Your task to perform on an android device: allow cookies in the chrome app Image 0: 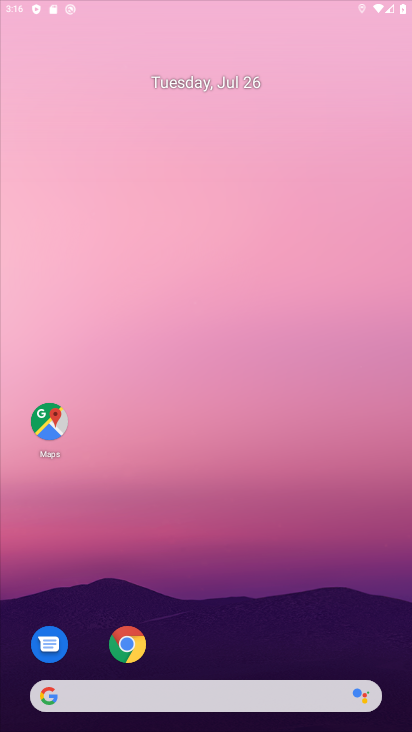
Step 0: click (213, 222)
Your task to perform on an android device: allow cookies in the chrome app Image 1: 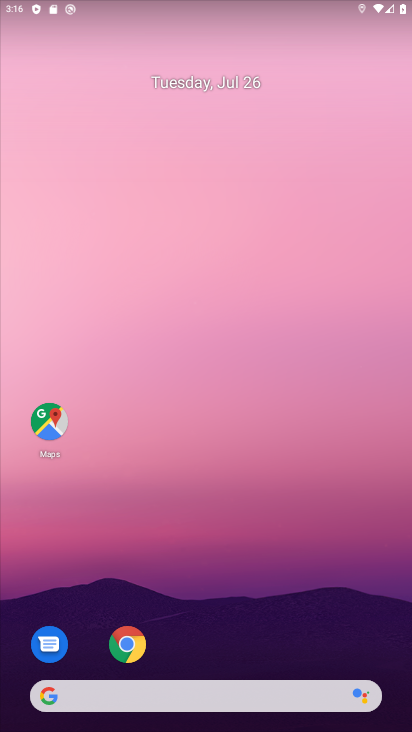
Step 1: drag from (192, 647) to (217, 311)
Your task to perform on an android device: allow cookies in the chrome app Image 2: 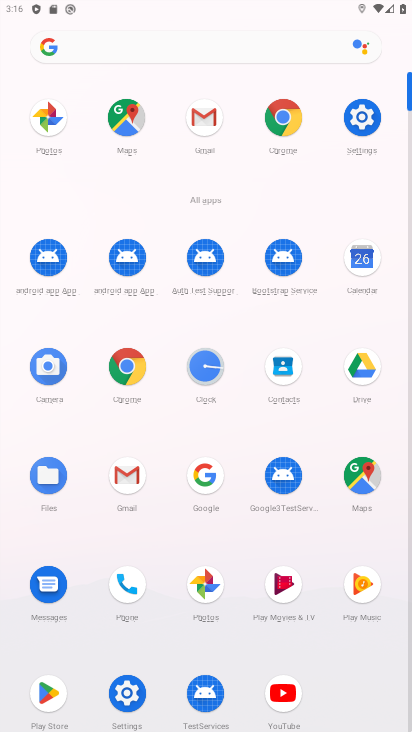
Step 2: click (121, 365)
Your task to perform on an android device: allow cookies in the chrome app Image 3: 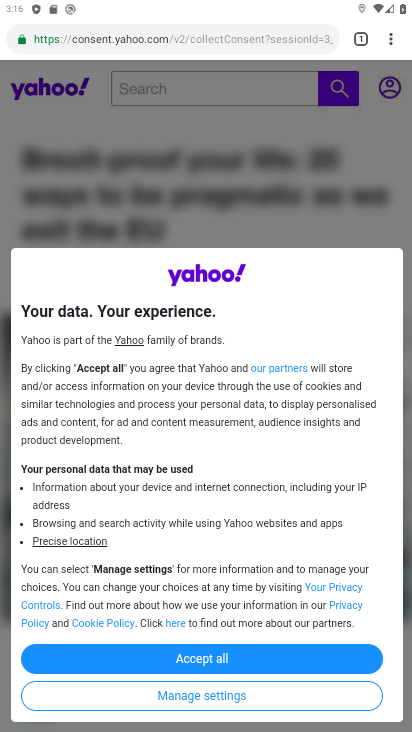
Step 3: drag from (395, 39) to (273, 474)
Your task to perform on an android device: allow cookies in the chrome app Image 4: 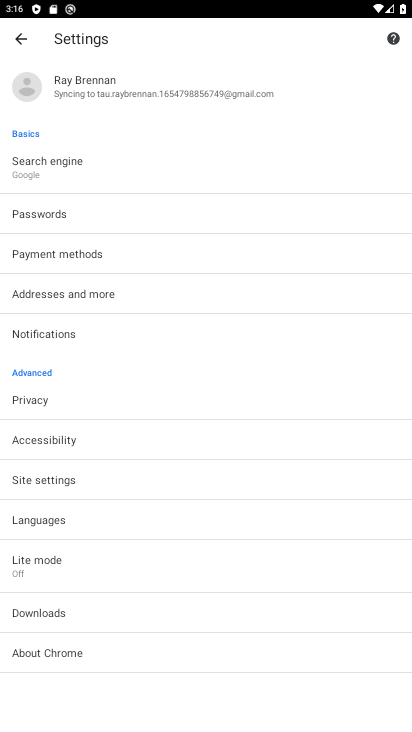
Step 4: click (58, 478)
Your task to perform on an android device: allow cookies in the chrome app Image 5: 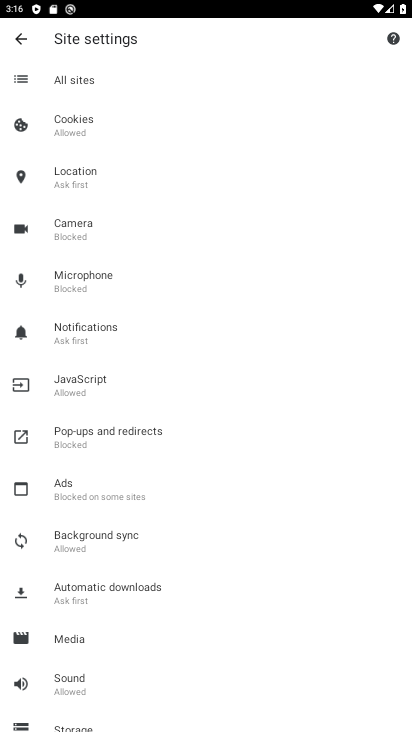
Step 5: click (103, 127)
Your task to perform on an android device: allow cookies in the chrome app Image 6: 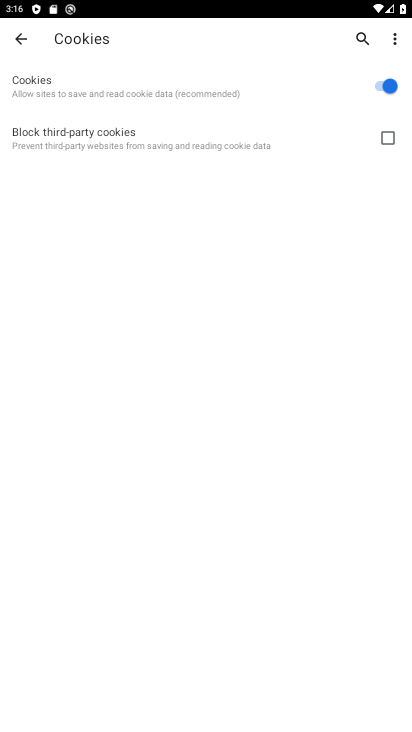
Step 6: task complete